Your task to perform on an android device: What's the time in New York? Image 0: 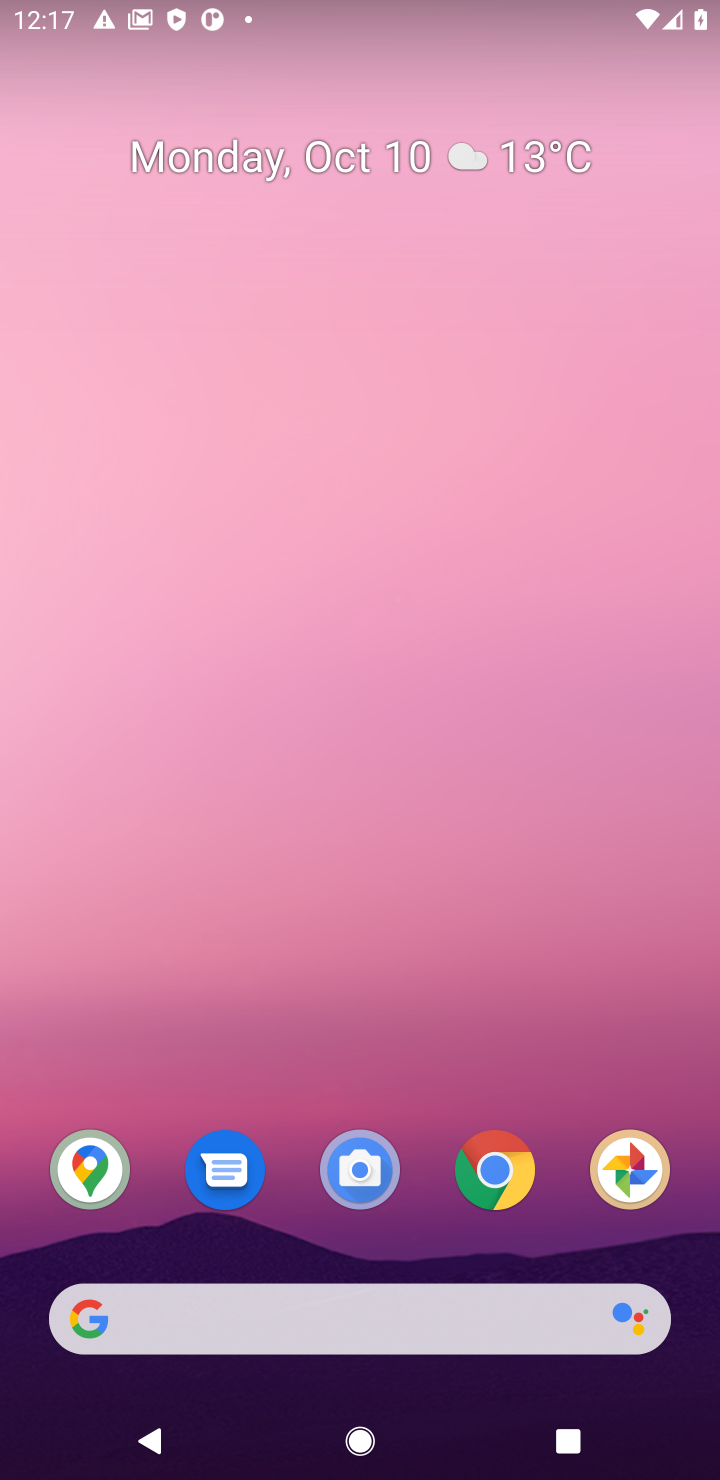
Step 0: click (493, 1169)
Your task to perform on an android device: What's the time in New York? Image 1: 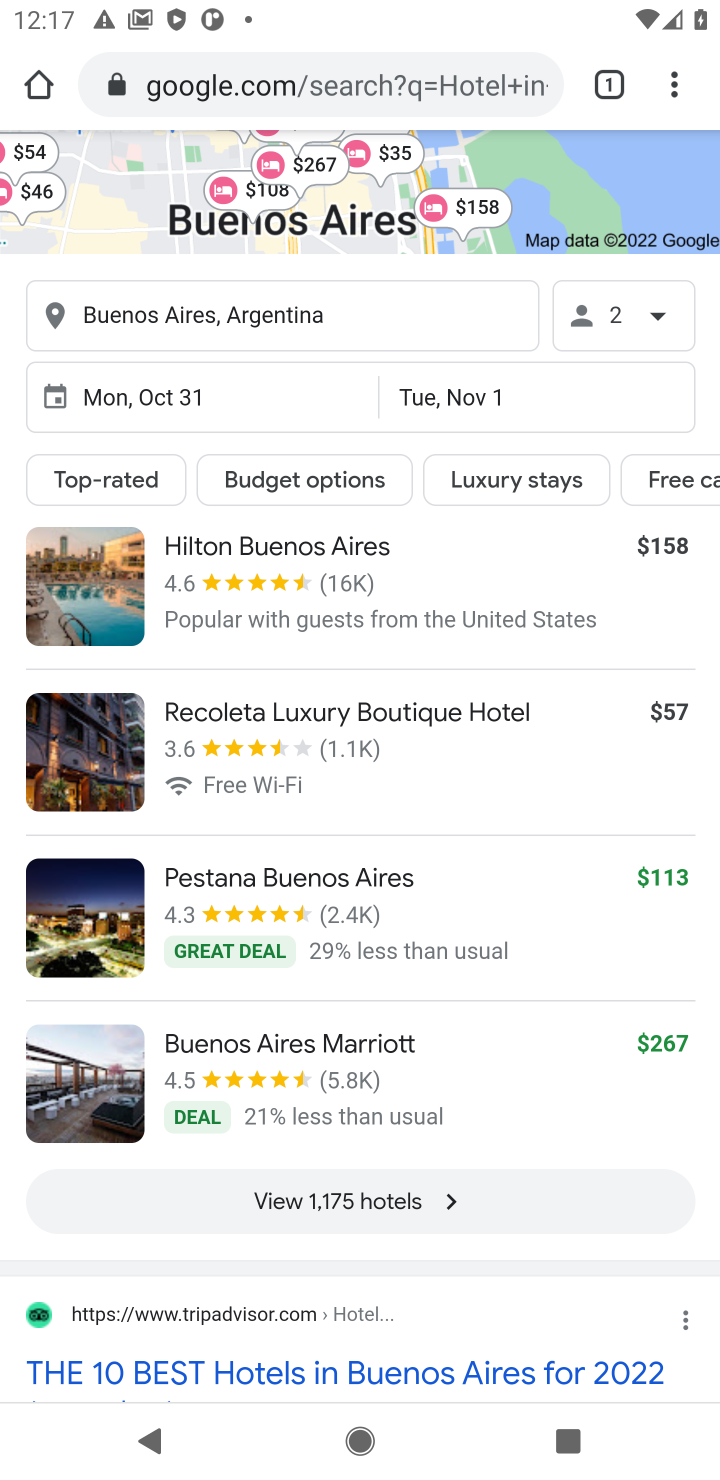
Step 1: click (458, 100)
Your task to perform on an android device: What's the time in New York? Image 2: 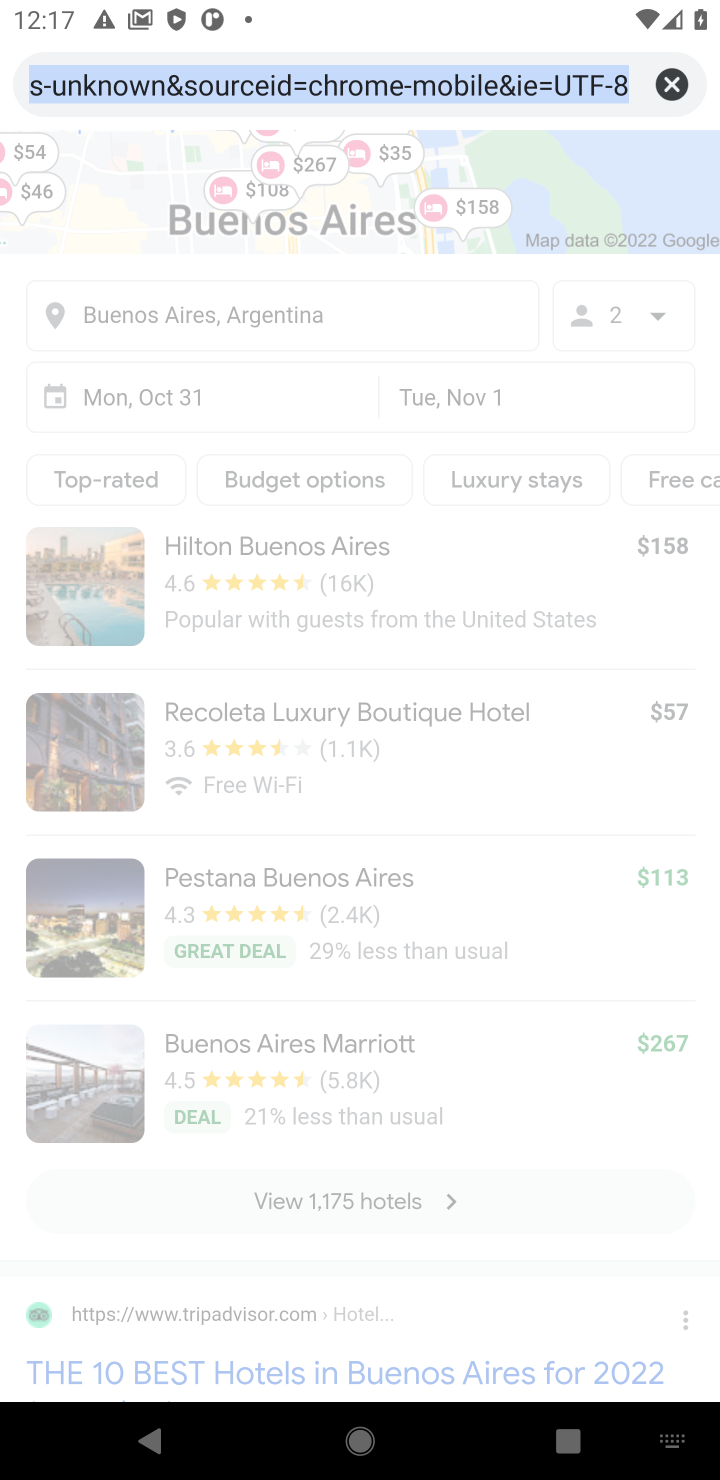
Step 2: click (689, 82)
Your task to perform on an android device: What's the time in New York? Image 3: 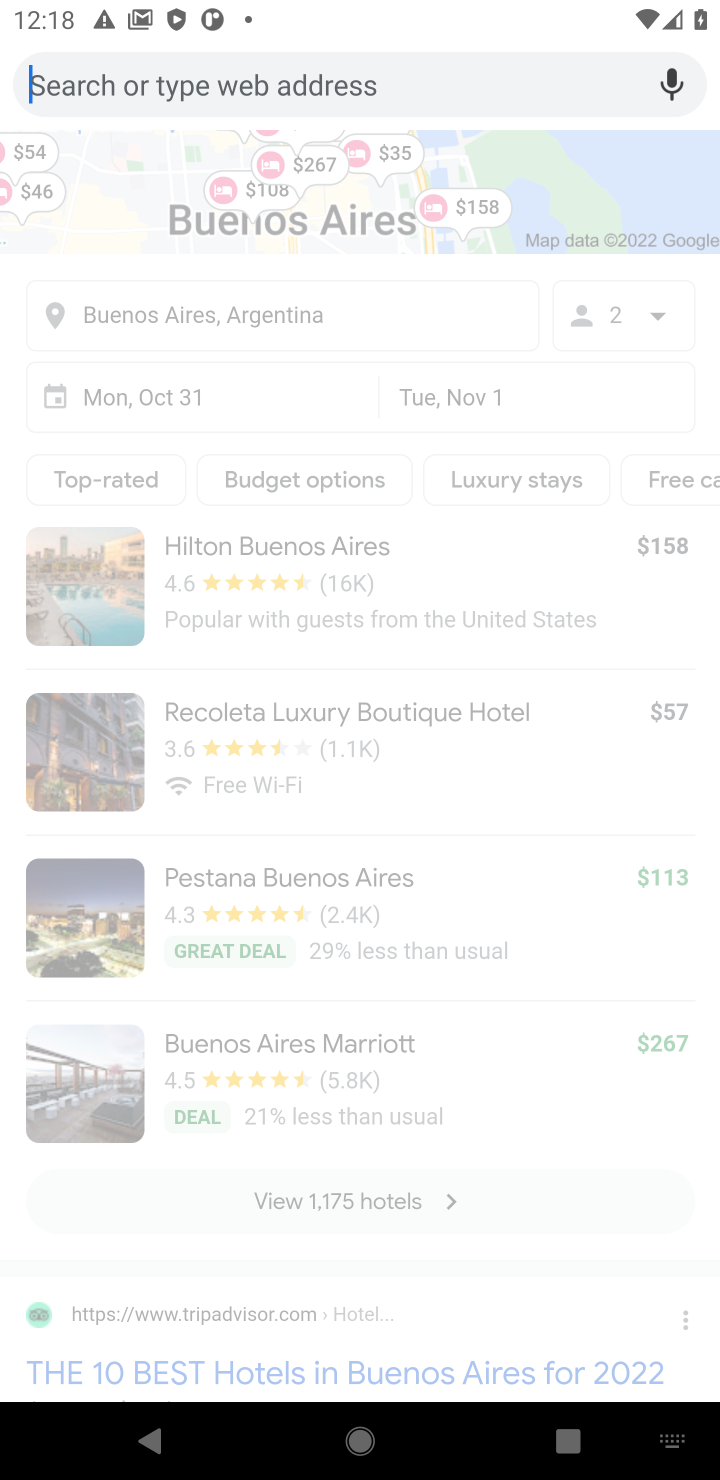
Step 3: type "What's the time in New York"
Your task to perform on an android device: What's the time in New York? Image 4: 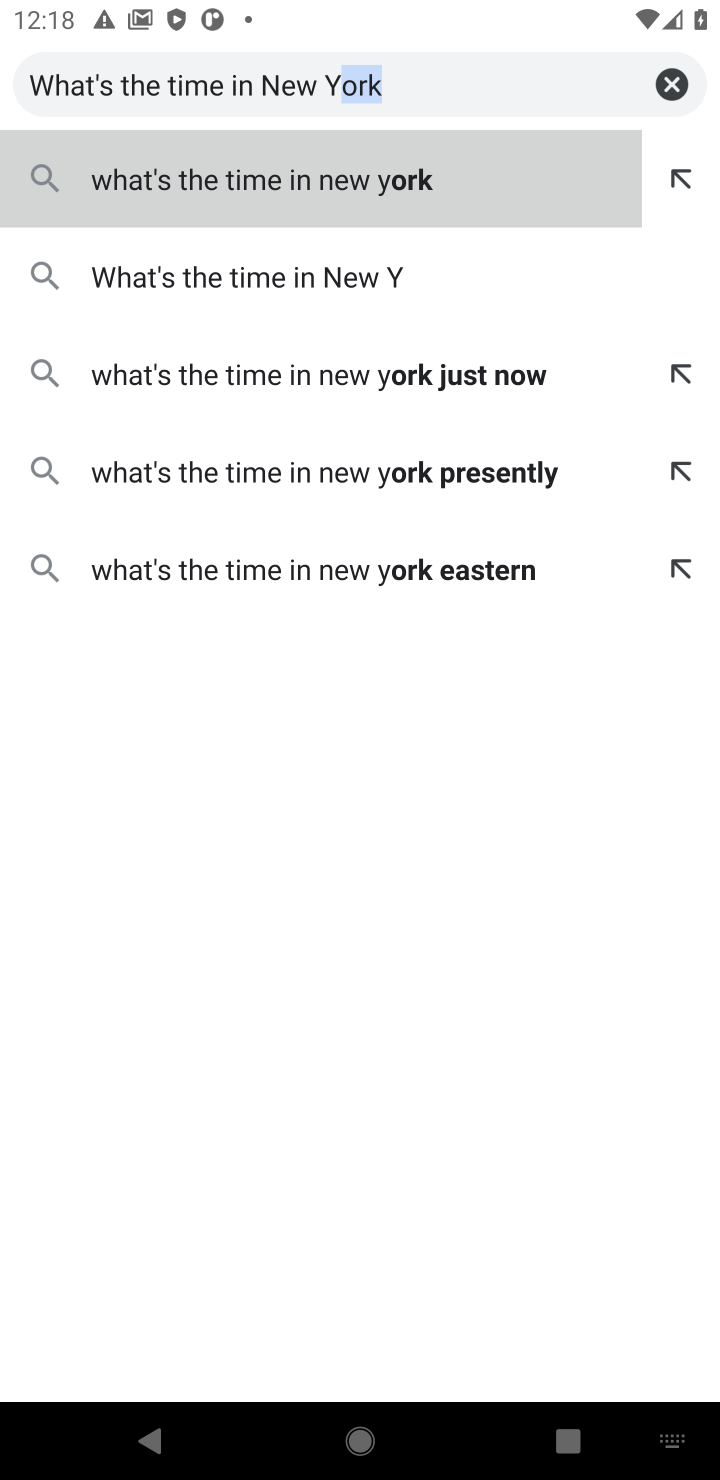
Step 4: click (571, 206)
Your task to perform on an android device: What's the time in New York? Image 5: 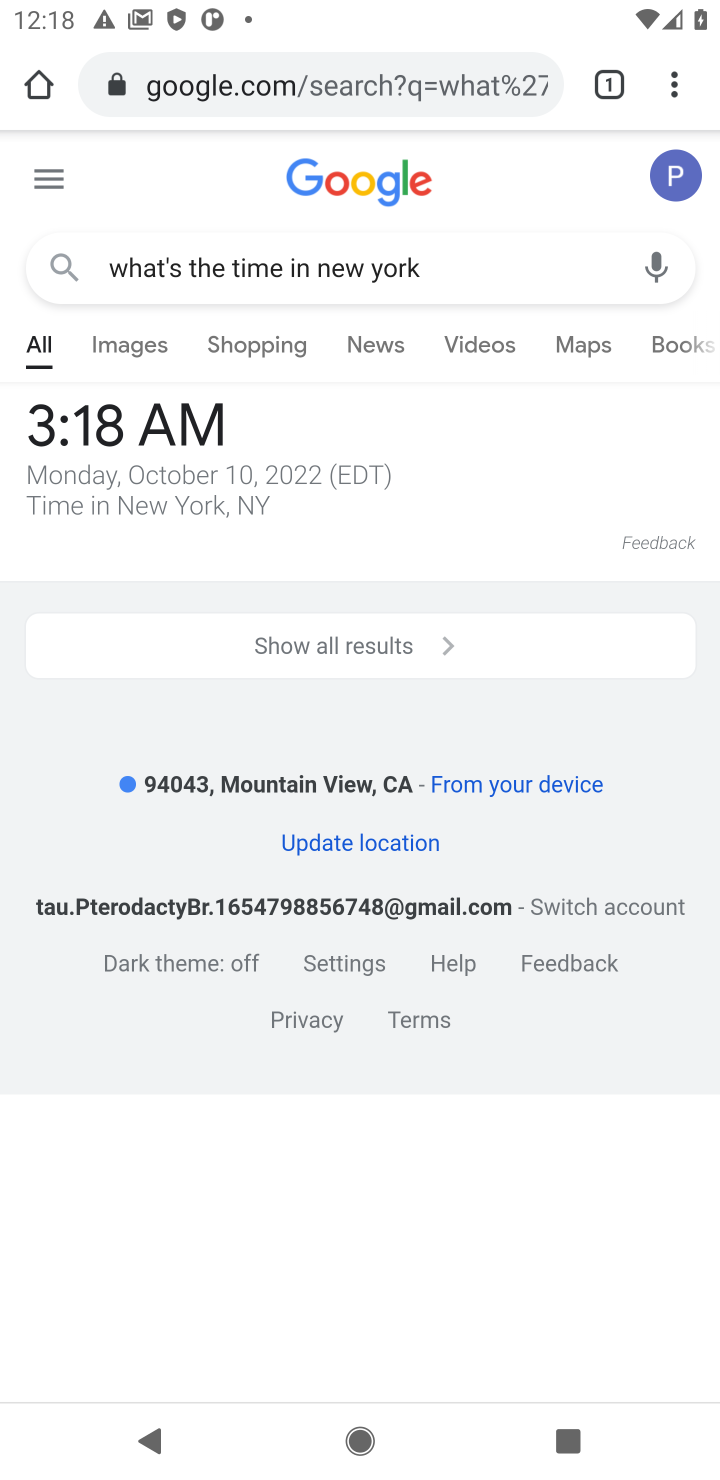
Step 5: task complete